Your task to perform on an android device: Search for the best 4k TVs Image 0: 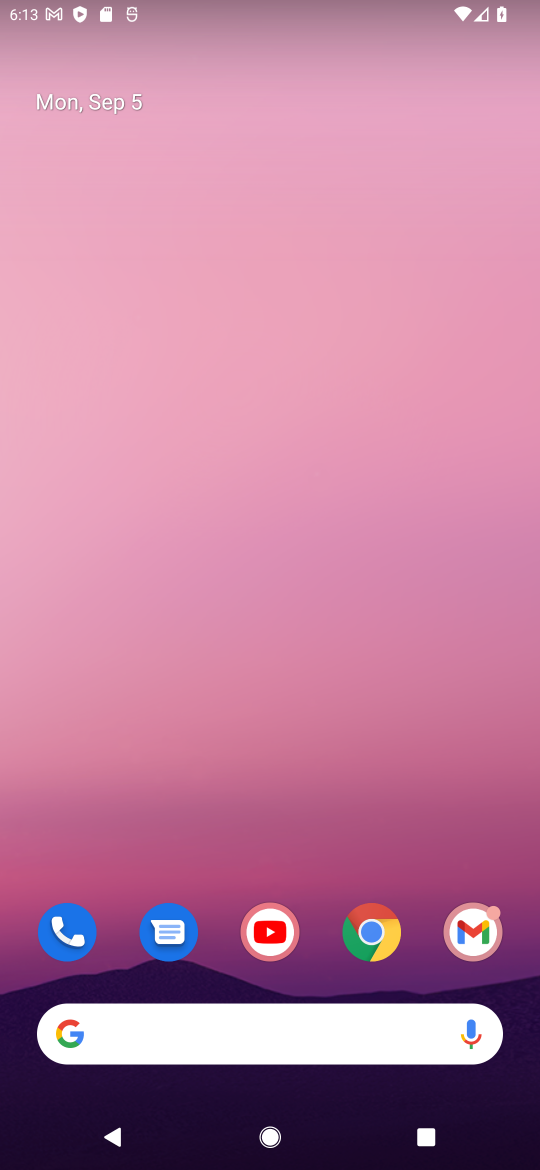
Step 0: drag from (228, 421) to (209, 198)
Your task to perform on an android device: Search for the best 4k TVs Image 1: 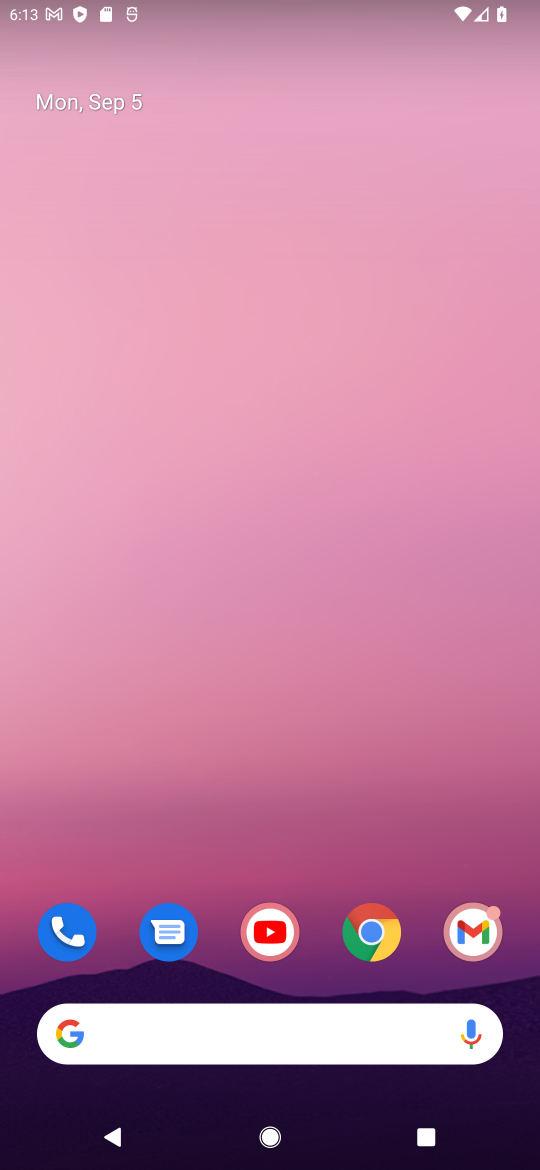
Step 1: click (372, 939)
Your task to perform on an android device: Search for the best 4k TVs Image 2: 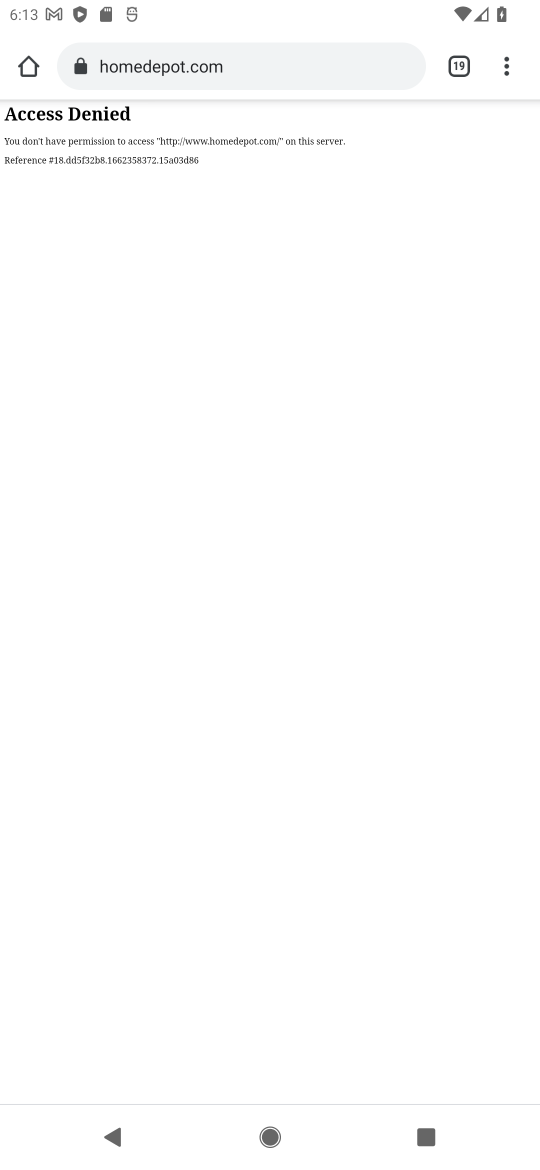
Step 2: drag from (503, 74) to (292, 203)
Your task to perform on an android device: Search for the best 4k TVs Image 3: 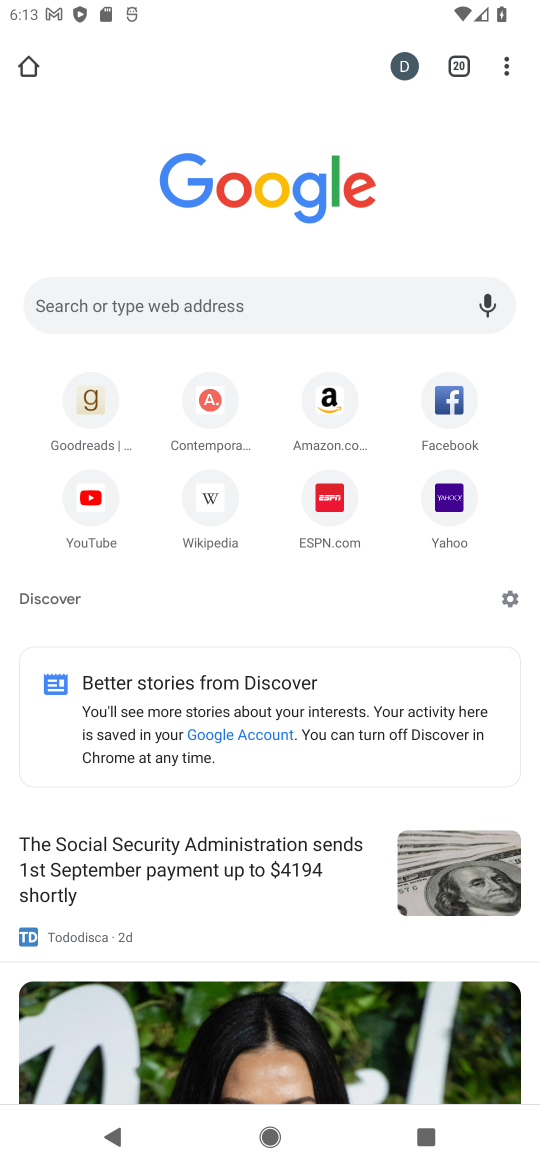
Step 3: click (250, 305)
Your task to perform on an android device: Search for the best 4k TVs Image 4: 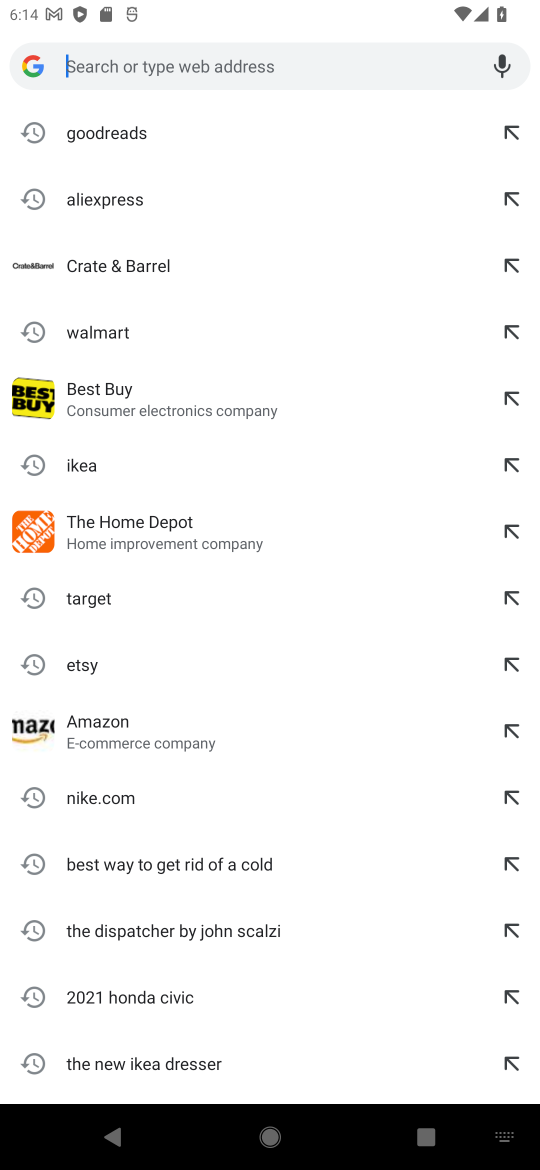
Step 4: type "best 4k TVs"
Your task to perform on an android device: Search for the best 4k TVs Image 5: 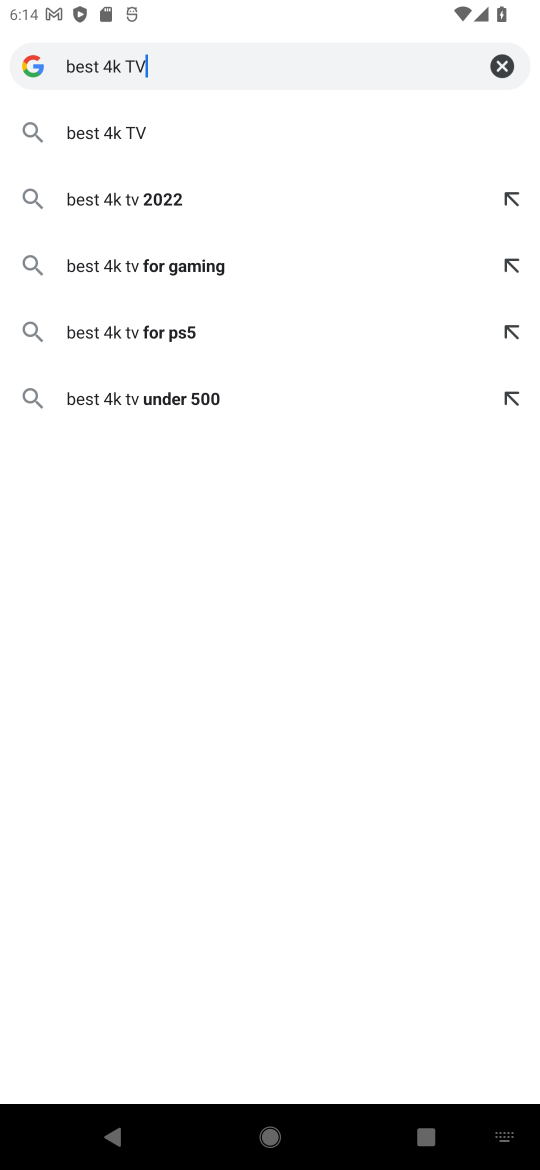
Step 5: type ""
Your task to perform on an android device: Search for the best 4k TVs Image 6: 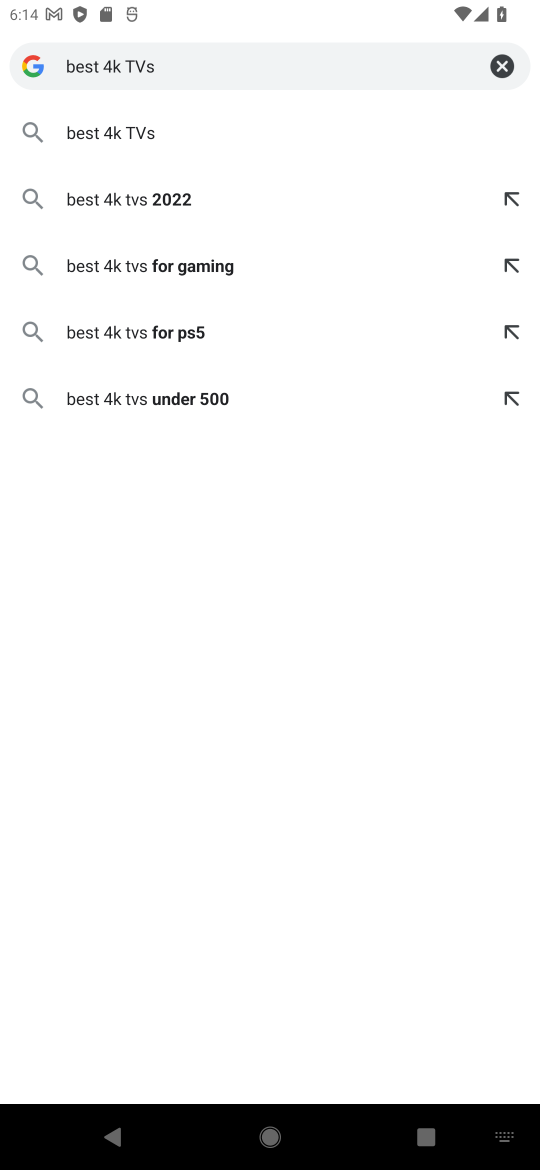
Step 6: click (102, 135)
Your task to perform on an android device: Search for the best 4k TVs Image 7: 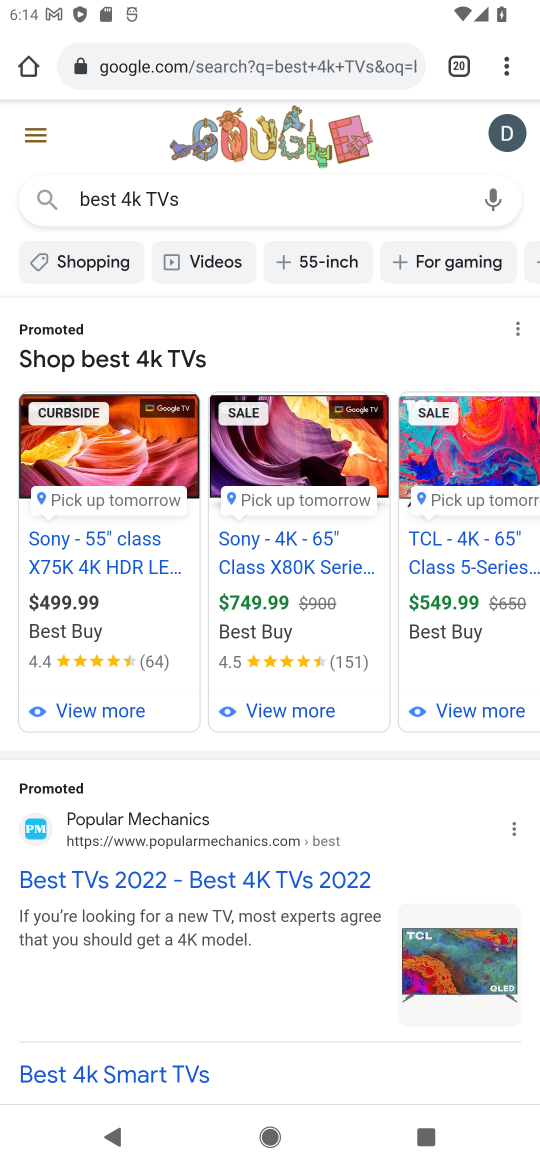
Step 7: task complete